Your task to perform on an android device: Go to Android settings Image 0: 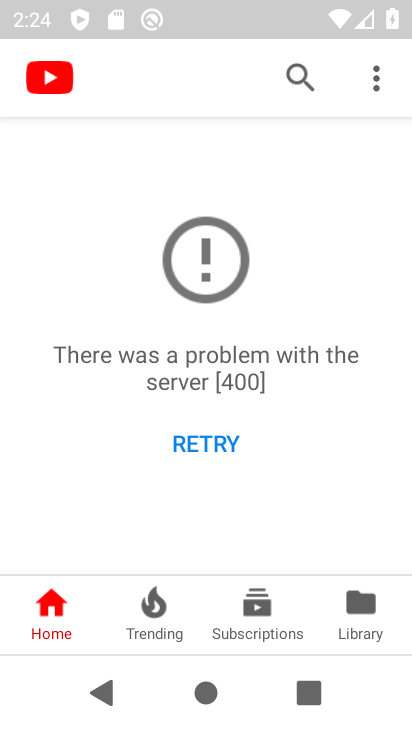
Step 0: press home button
Your task to perform on an android device: Go to Android settings Image 1: 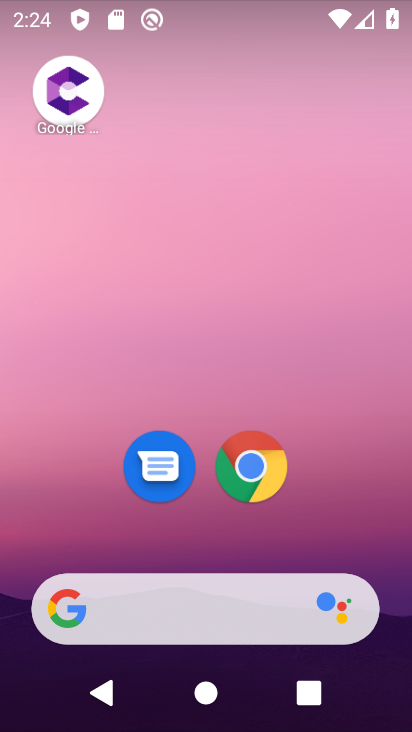
Step 1: drag from (352, 556) to (352, 4)
Your task to perform on an android device: Go to Android settings Image 2: 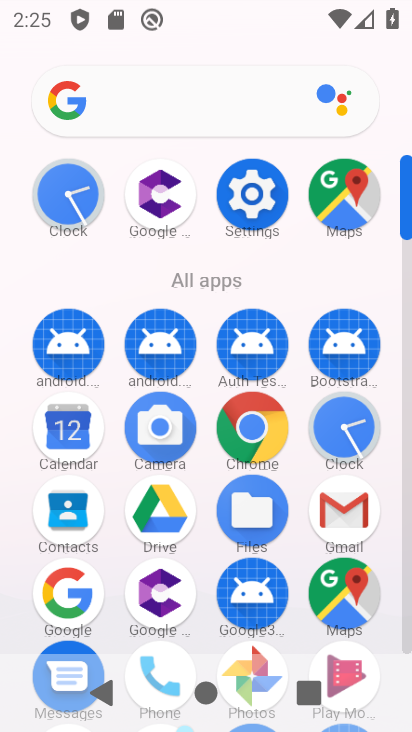
Step 2: click (254, 199)
Your task to perform on an android device: Go to Android settings Image 3: 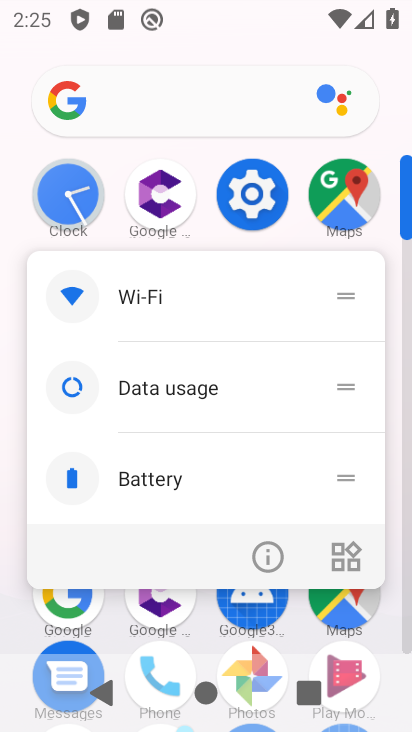
Step 3: click (255, 195)
Your task to perform on an android device: Go to Android settings Image 4: 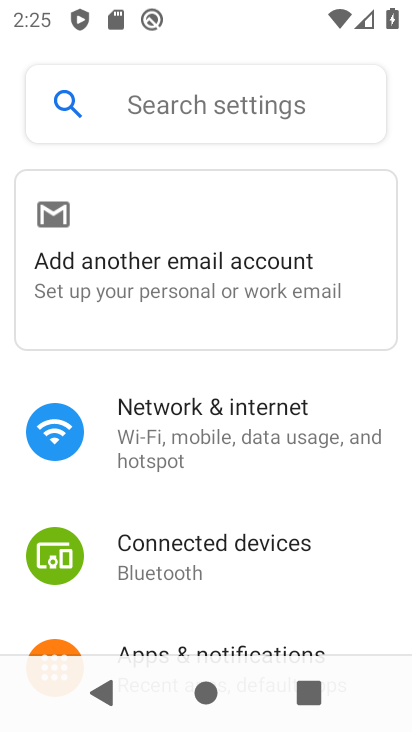
Step 4: task complete